Your task to perform on an android device: Is it going to rain today? Image 0: 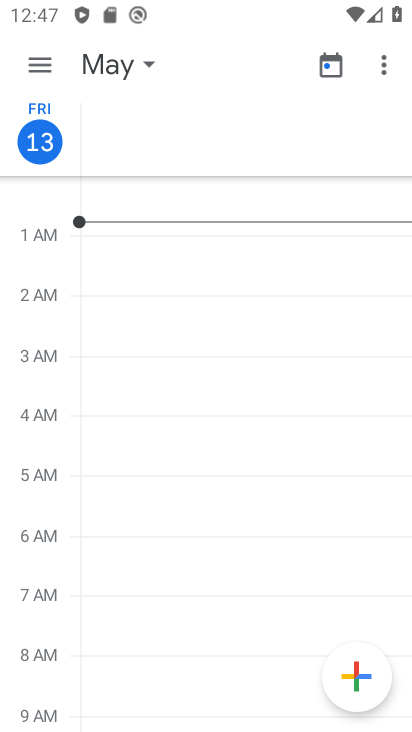
Step 0: press back button
Your task to perform on an android device: Is it going to rain today? Image 1: 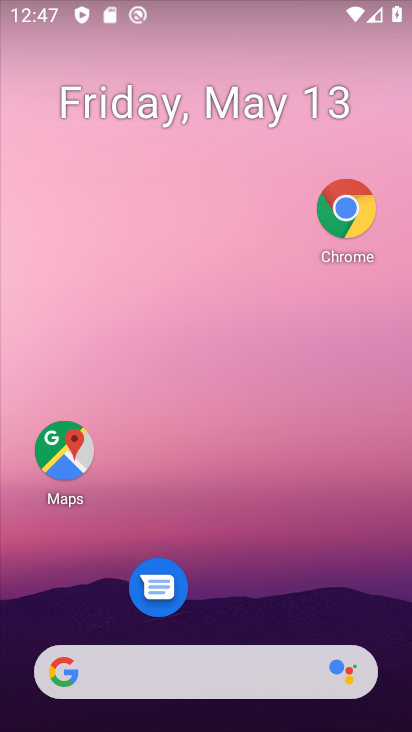
Step 1: drag from (207, 557) to (268, 95)
Your task to perform on an android device: Is it going to rain today? Image 2: 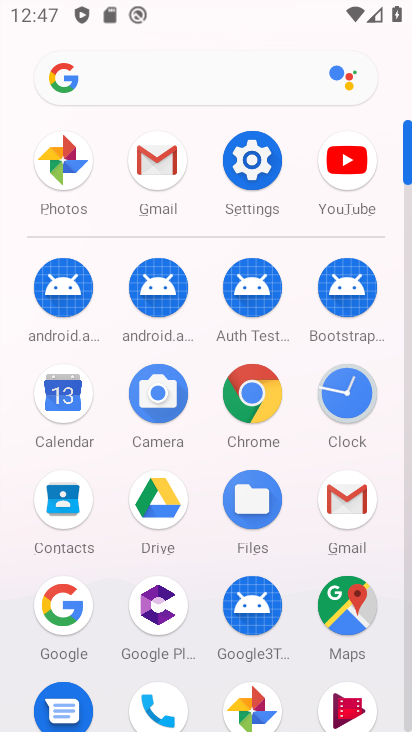
Step 2: click (118, 81)
Your task to perform on an android device: Is it going to rain today? Image 3: 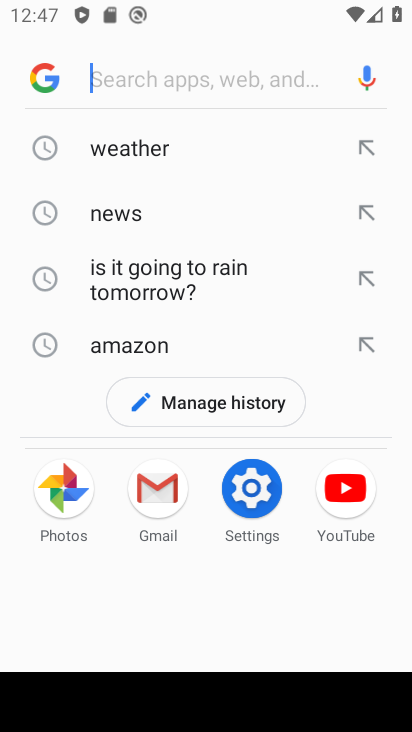
Step 3: click (137, 144)
Your task to perform on an android device: Is it going to rain today? Image 4: 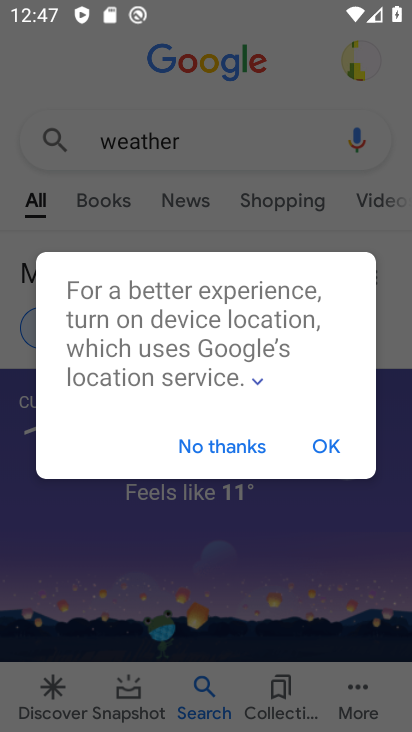
Step 4: click (311, 439)
Your task to perform on an android device: Is it going to rain today? Image 5: 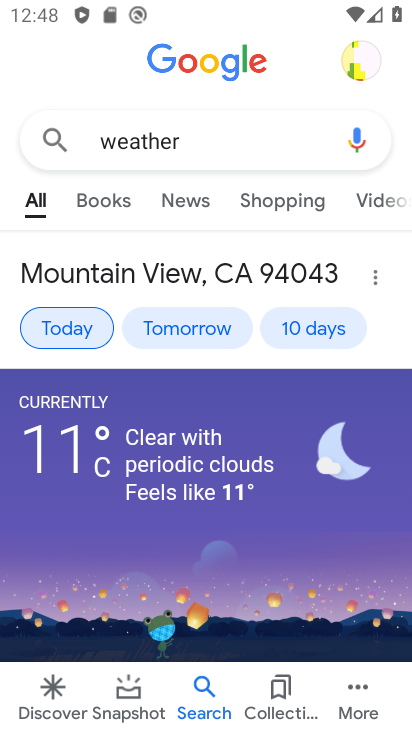
Step 5: task complete